Your task to perform on an android device: delete a single message in the gmail app Image 0: 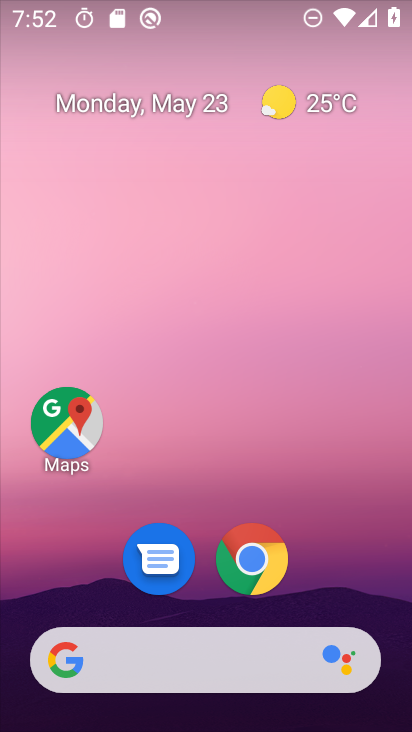
Step 0: drag from (392, 629) to (297, 70)
Your task to perform on an android device: delete a single message in the gmail app Image 1: 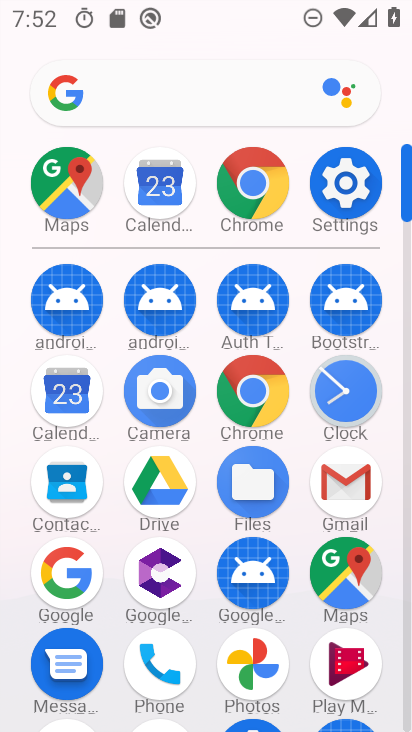
Step 1: click (364, 470)
Your task to perform on an android device: delete a single message in the gmail app Image 2: 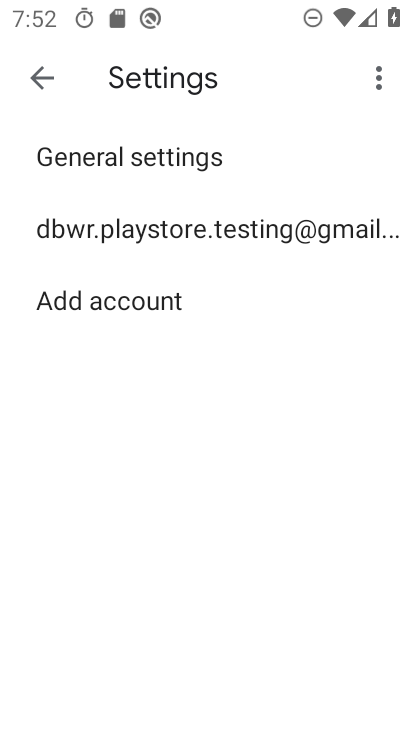
Step 2: press back button
Your task to perform on an android device: delete a single message in the gmail app Image 3: 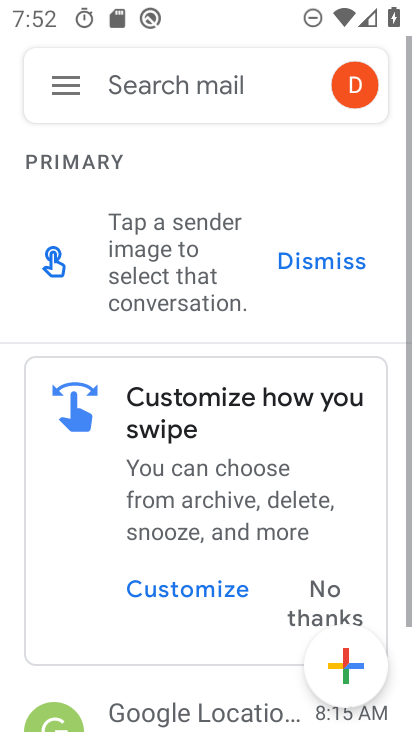
Step 3: drag from (178, 652) to (176, 212)
Your task to perform on an android device: delete a single message in the gmail app Image 4: 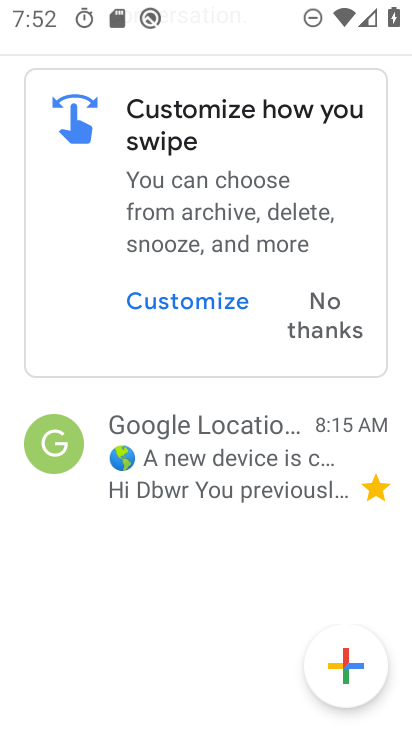
Step 4: click (218, 458)
Your task to perform on an android device: delete a single message in the gmail app Image 5: 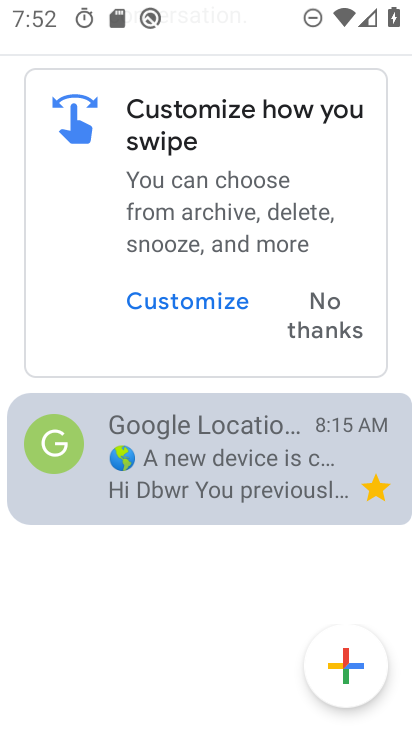
Step 5: click (218, 458)
Your task to perform on an android device: delete a single message in the gmail app Image 6: 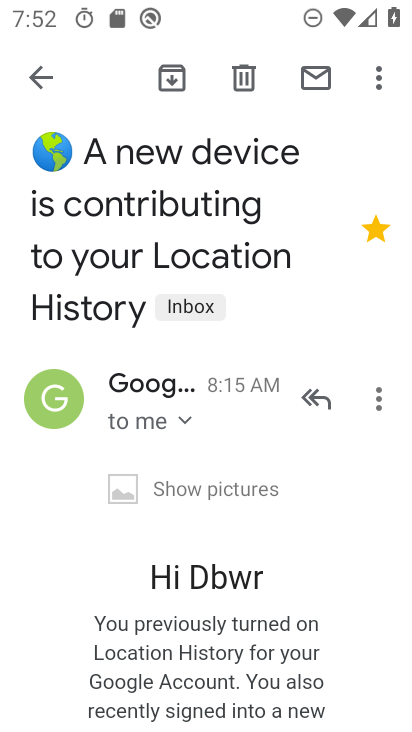
Step 6: press back button
Your task to perform on an android device: delete a single message in the gmail app Image 7: 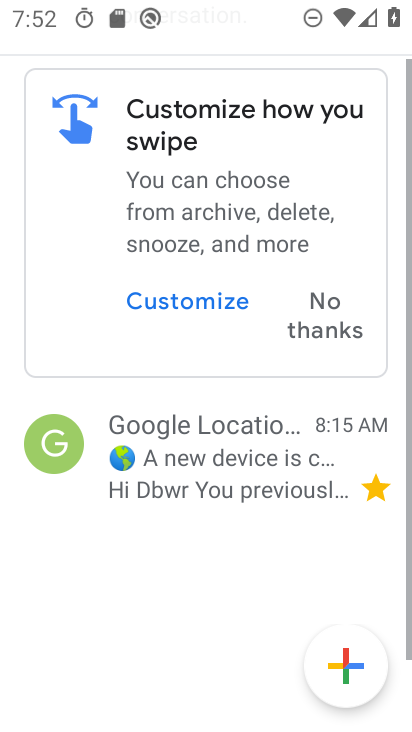
Step 7: click (226, 500)
Your task to perform on an android device: delete a single message in the gmail app Image 8: 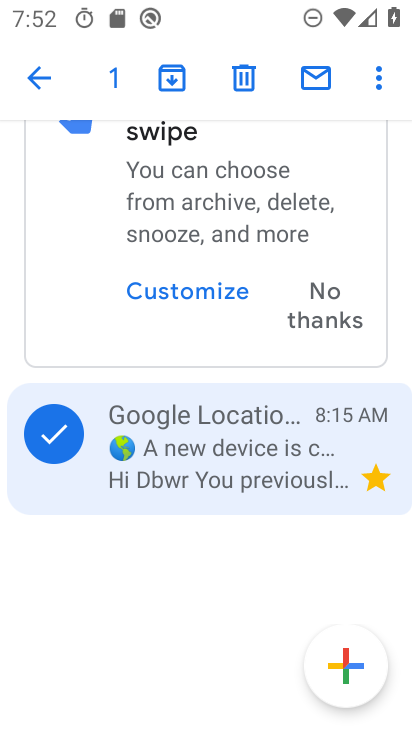
Step 8: click (245, 89)
Your task to perform on an android device: delete a single message in the gmail app Image 9: 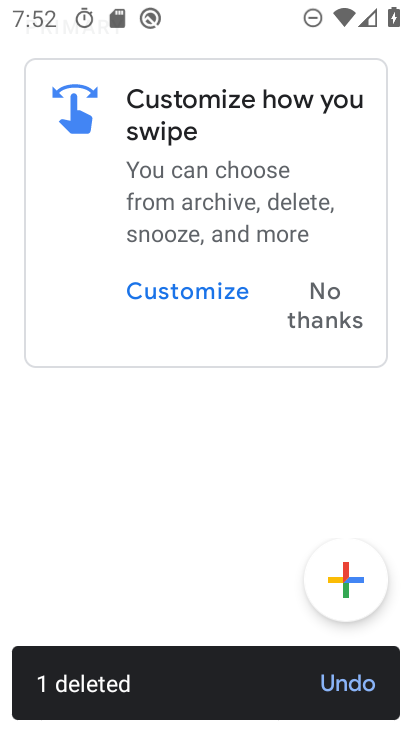
Step 9: task complete